Your task to perform on an android device: Open ESPN.com Image 0: 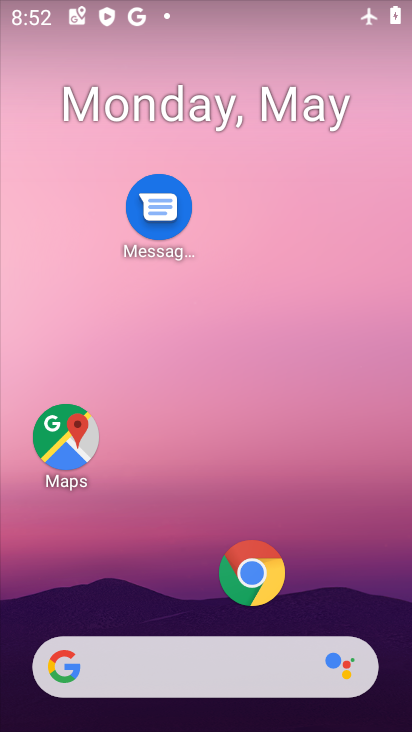
Step 0: drag from (229, 658) to (273, 231)
Your task to perform on an android device: Open ESPN.com Image 1: 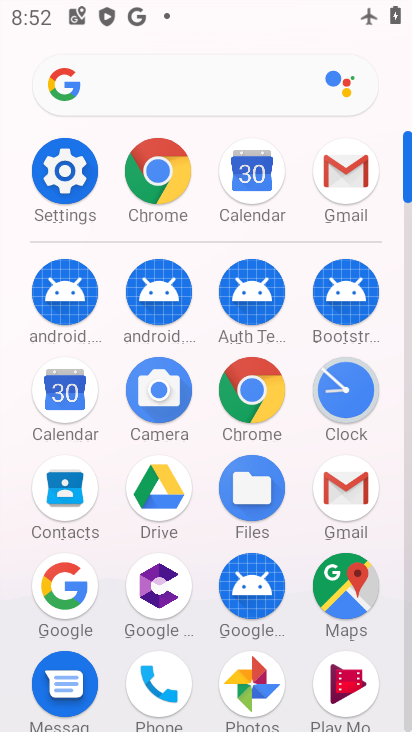
Step 1: click (164, 192)
Your task to perform on an android device: Open ESPN.com Image 2: 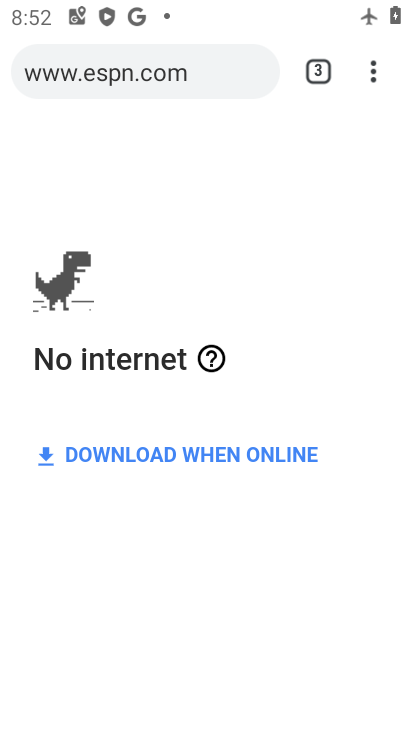
Step 2: click (147, 88)
Your task to perform on an android device: Open ESPN.com Image 3: 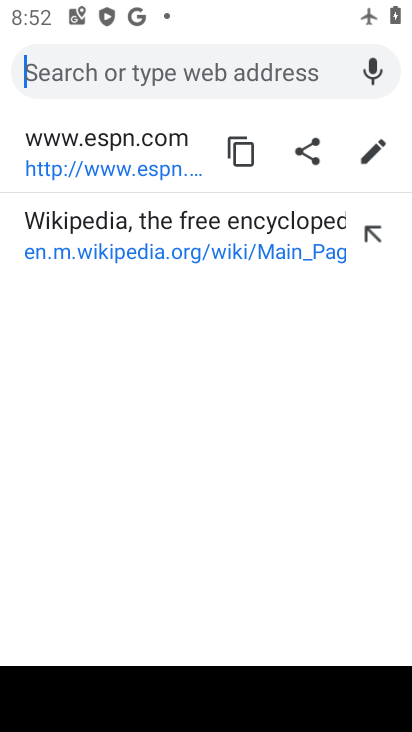
Step 3: click (104, 159)
Your task to perform on an android device: Open ESPN.com Image 4: 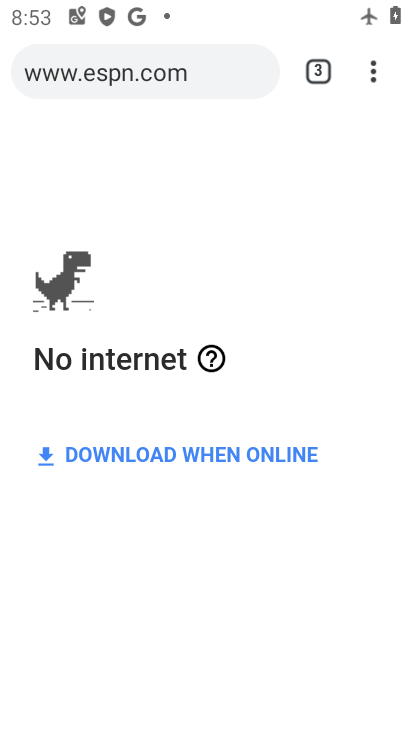
Step 4: task complete